Your task to perform on an android device: Open privacy settings Image 0: 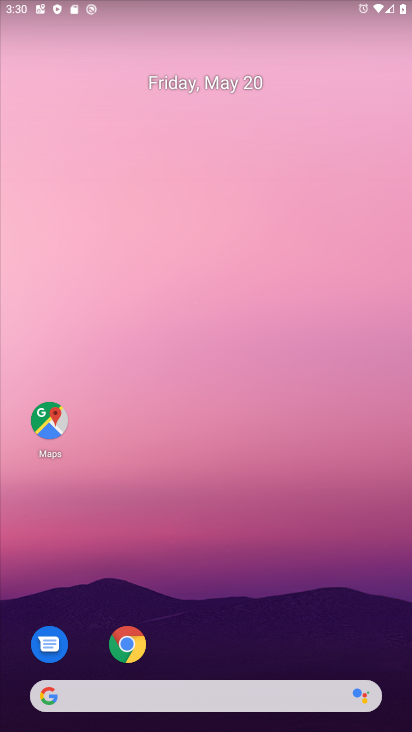
Step 0: drag from (343, 645) to (254, 181)
Your task to perform on an android device: Open privacy settings Image 1: 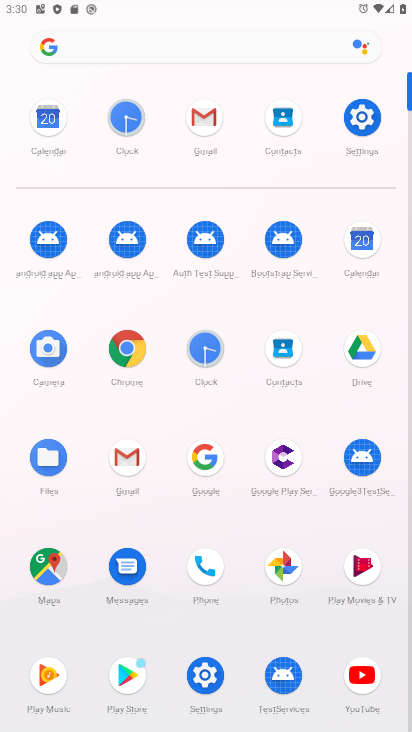
Step 1: click (368, 127)
Your task to perform on an android device: Open privacy settings Image 2: 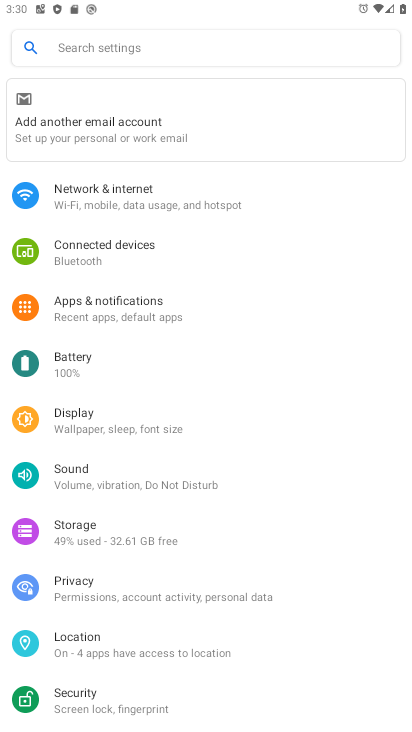
Step 2: drag from (223, 545) to (217, 481)
Your task to perform on an android device: Open privacy settings Image 3: 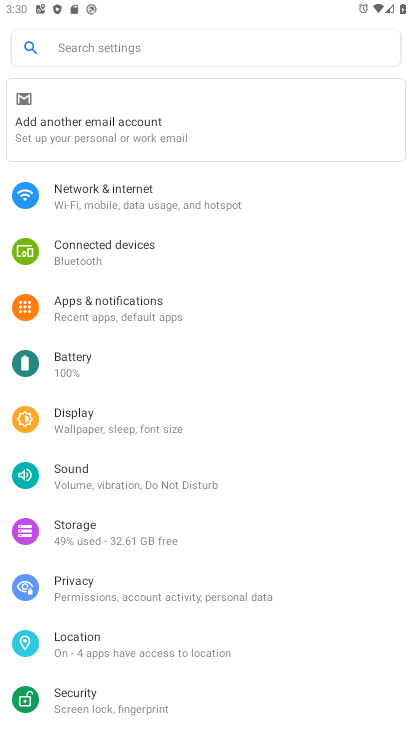
Step 3: click (174, 574)
Your task to perform on an android device: Open privacy settings Image 4: 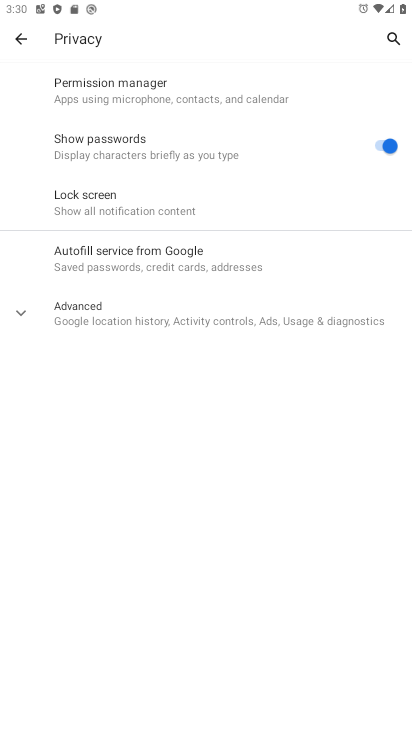
Step 4: task complete